Your task to perform on an android device: Go to Google maps Image 0: 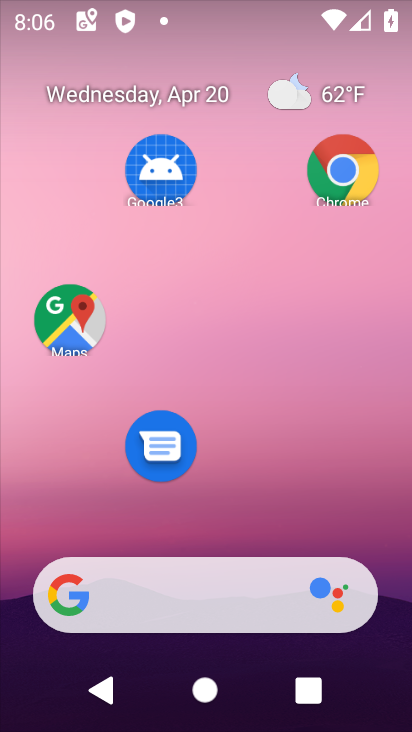
Step 0: drag from (214, 516) to (180, 17)
Your task to perform on an android device: Go to Google maps Image 1: 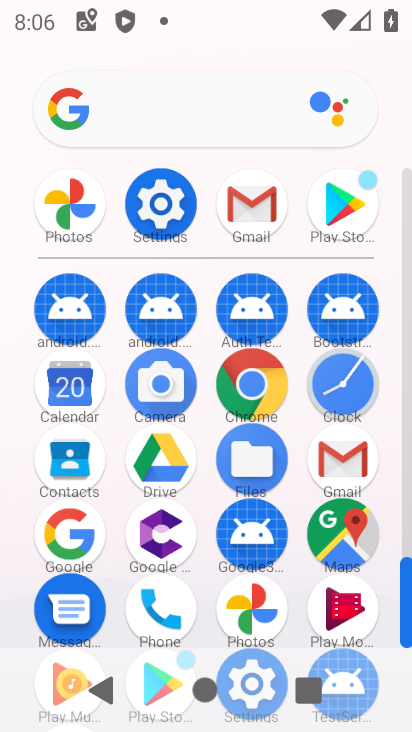
Step 1: click (337, 532)
Your task to perform on an android device: Go to Google maps Image 2: 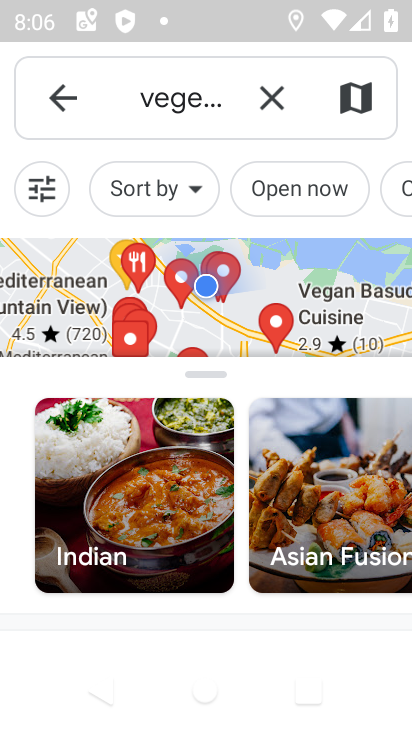
Step 2: task complete